Your task to perform on an android device: Open privacy settings Image 0: 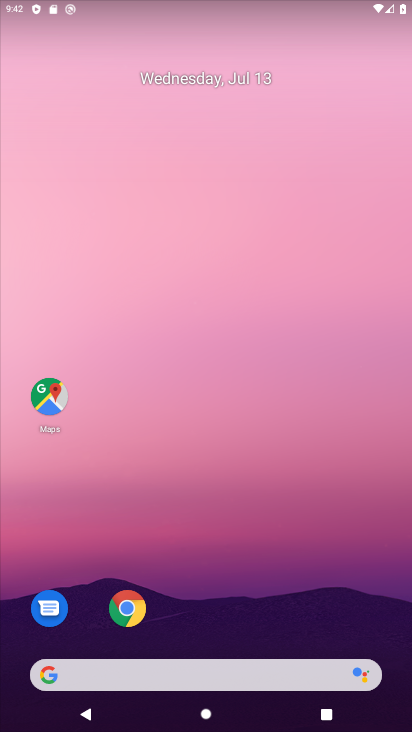
Step 0: drag from (184, 592) to (173, 11)
Your task to perform on an android device: Open privacy settings Image 1: 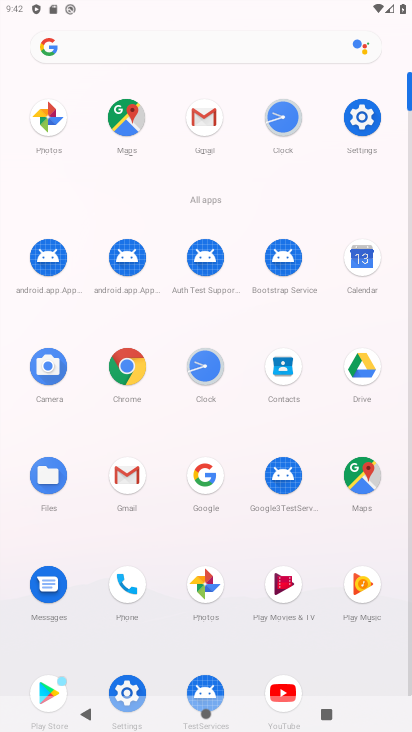
Step 1: click (130, 683)
Your task to perform on an android device: Open privacy settings Image 2: 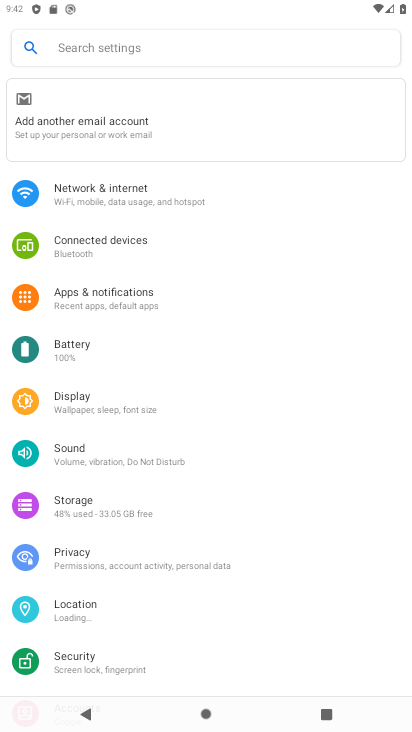
Step 2: click (122, 567)
Your task to perform on an android device: Open privacy settings Image 3: 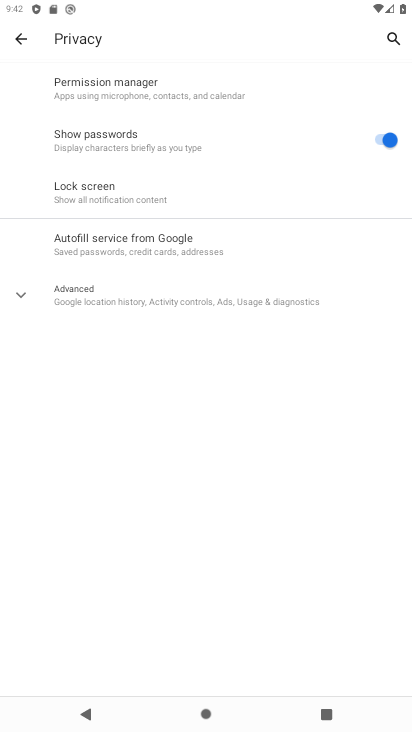
Step 3: task complete